Your task to perform on an android device: change your default location settings in chrome Image 0: 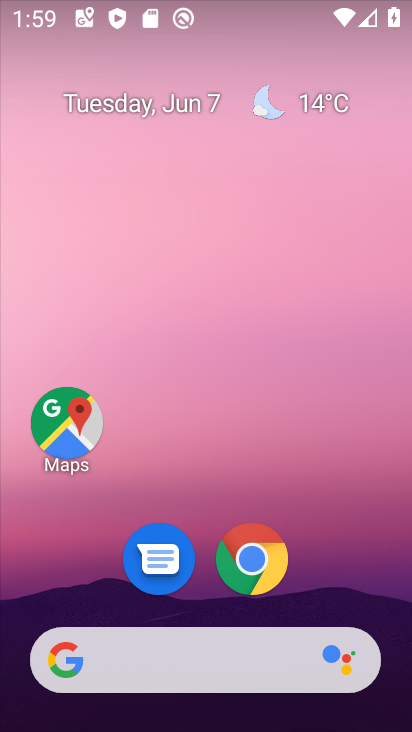
Step 0: drag from (317, 485) to (243, 60)
Your task to perform on an android device: change your default location settings in chrome Image 1: 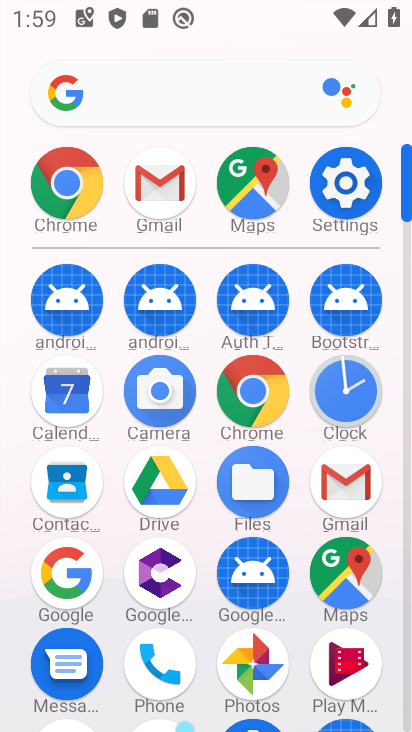
Step 1: click (254, 388)
Your task to perform on an android device: change your default location settings in chrome Image 2: 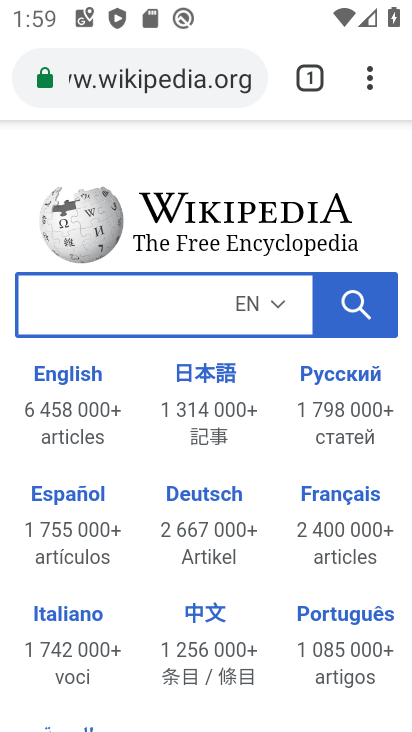
Step 2: drag from (368, 66) to (134, 602)
Your task to perform on an android device: change your default location settings in chrome Image 3: 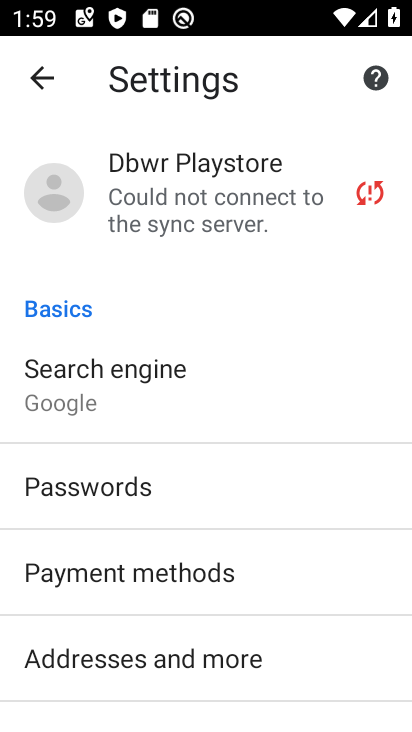
Step 3: drag from (250, 623) to (266, 260)
Your task to perform on an android device: change your default location settings in chrome Image 4: 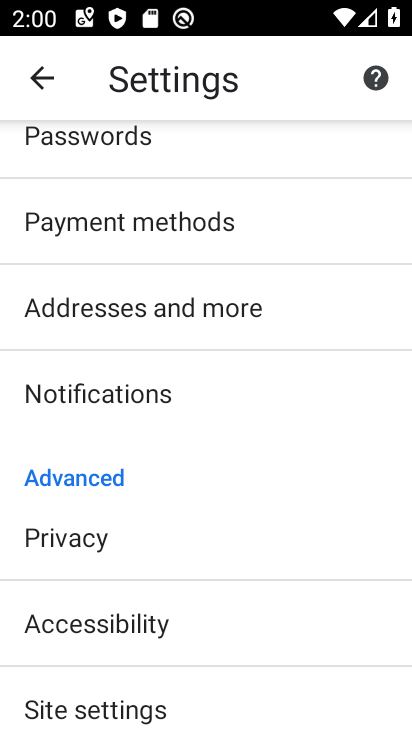
Step 4: drag from (191, 593) to (232, 272)
Your task to perform on an android device: change your default location settings in chrome Image 5: 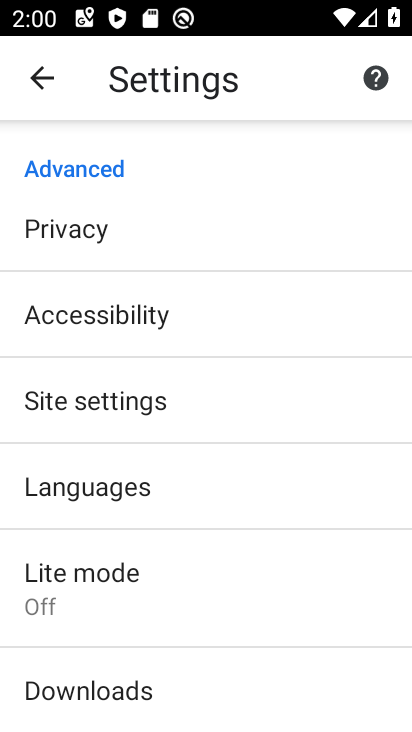
Step 5: click (152, 417)
Your task to perform on an android device: change your default location settings in chrome Image 6: 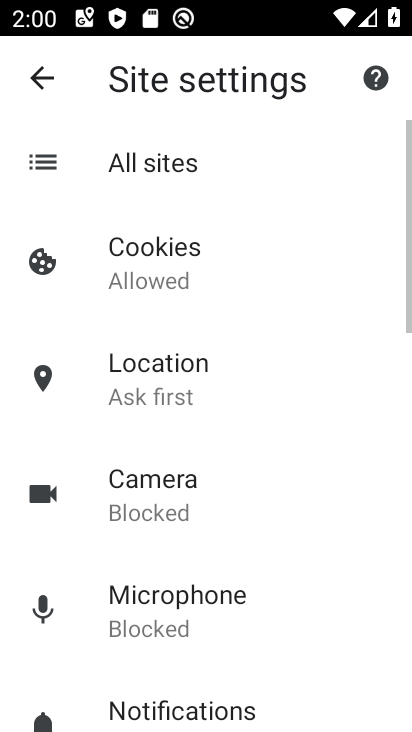
Step 6: click (170, 394)
Your task to perform on an android device: change your default location settings in chrome Image 7: 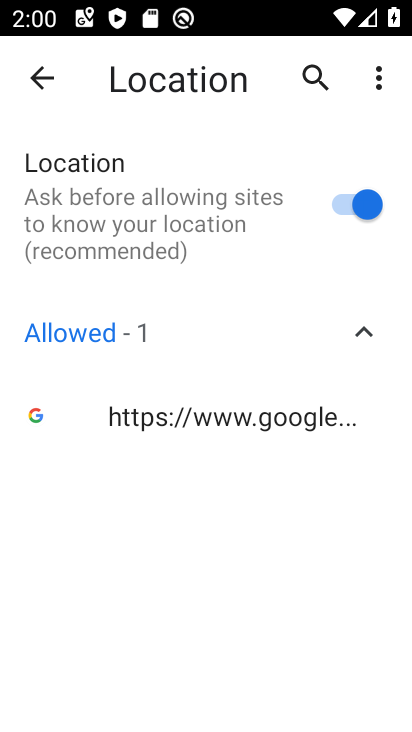
Step 7: click (339, 206)
Your task to perform on an android device: change your default location settings in chrome Image 8: 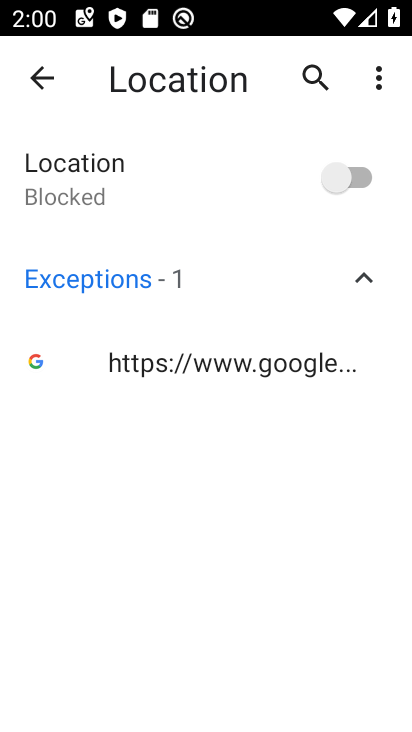
Step 8: task complete